Your task to perform on an android device: check data usage Image 0: 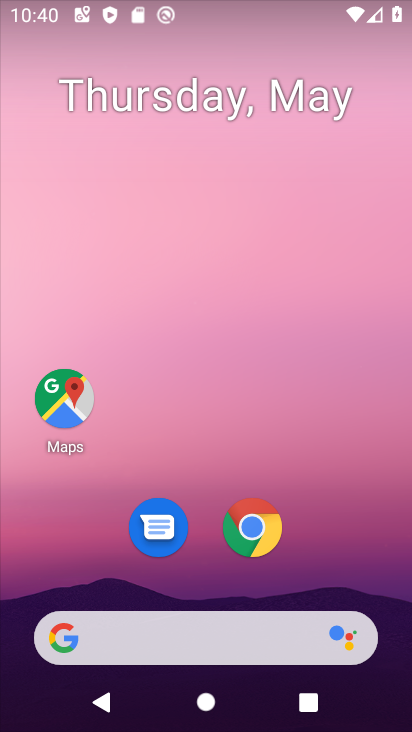
Step 0: drag from (341, 480) to (368, 126)
Your task to perform on an android device: check data usage Image 1: 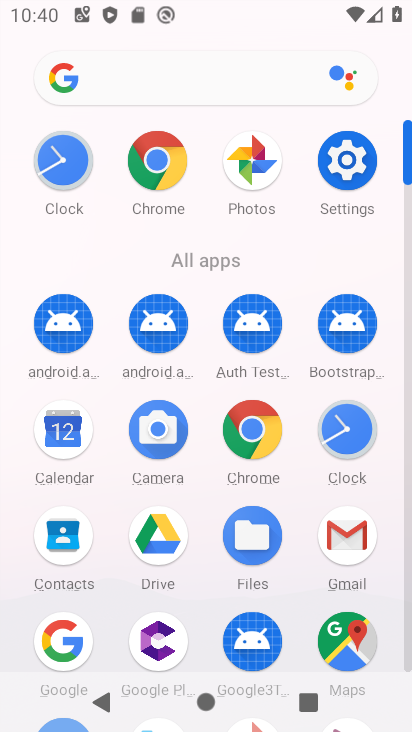
Step 1: click (347, 153)
Your task to perform on an android device: check data usage Image 2: 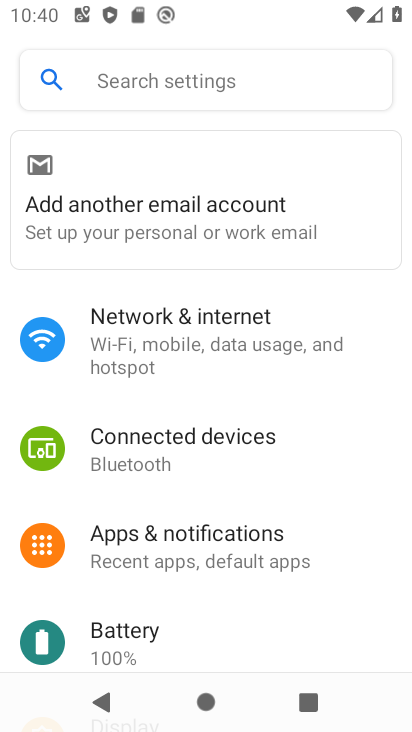
Step 2: click (195, 326)
Your task to perform on an android device: check data usage Image 3: 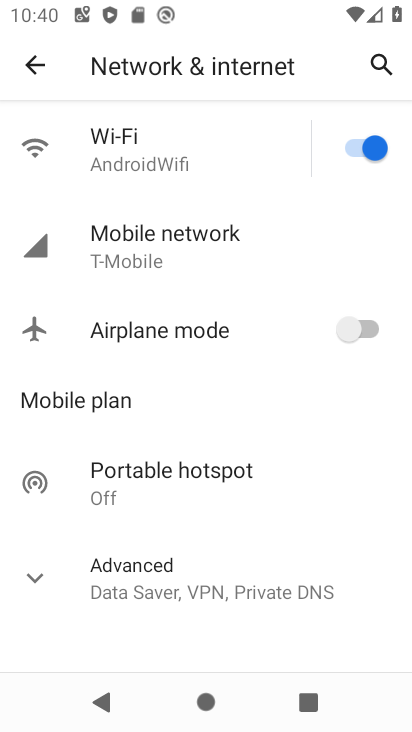
Step 3: click (193, 250)
Your task to perform on an android device: check data usage Image 4: 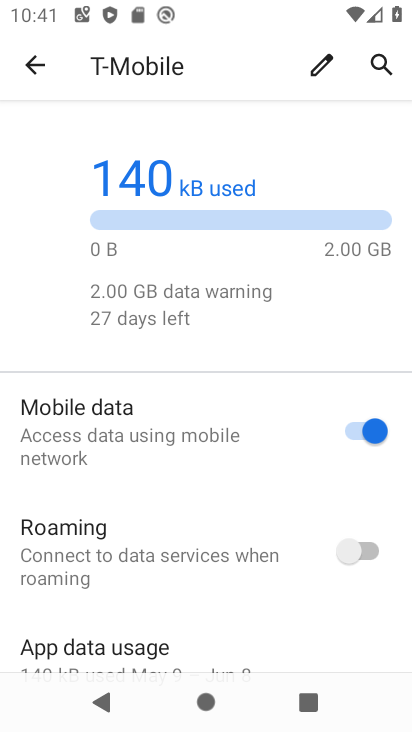
Step 4: task complete